Your task to perform on an android device: Show me the alarms in the clock app Image 0: 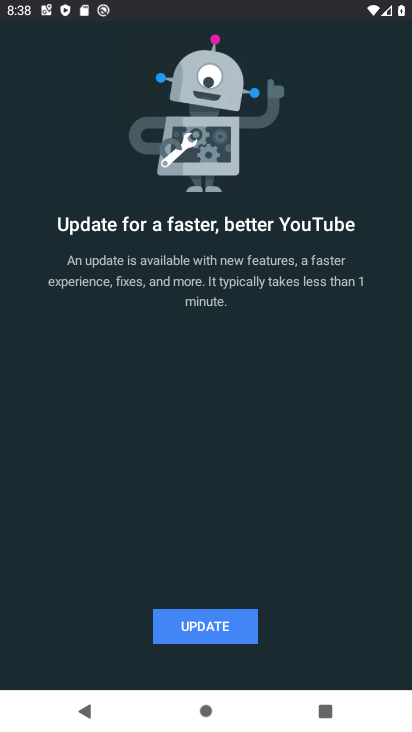
Step 0: press back button
Your task to perform on an android device: Show me the alarms in the clock app Image 1: 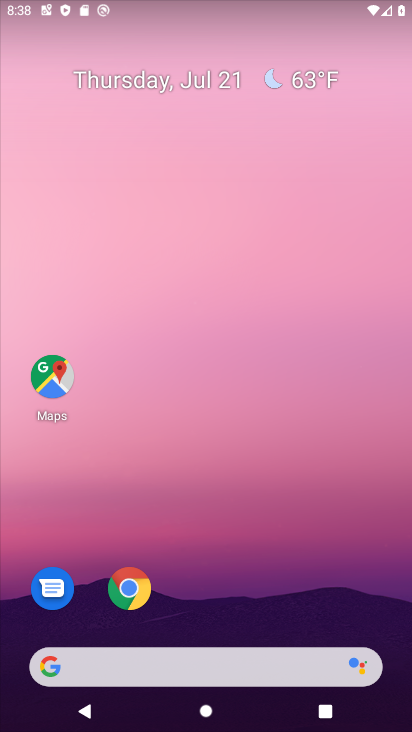
Step 1: drag from (312, 579) to (309, 266)
Your task to perform on an android device: Show me the alarms in the clock app Image 2: 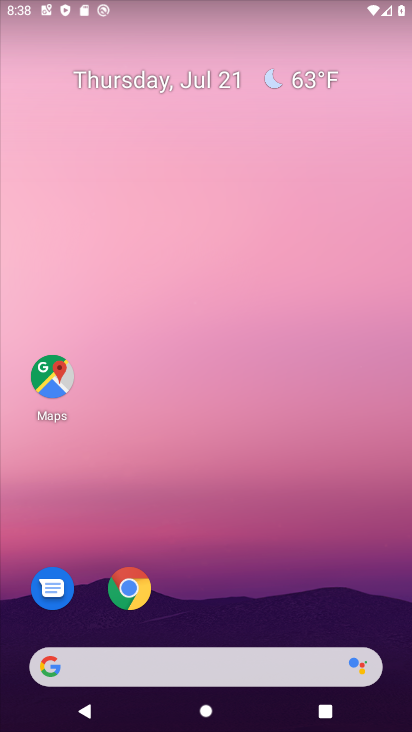
Step 2: drag from (267, 573) to (265, 74)
Your task to perform on an android device: Show me the alarms in the clock app Image 3: 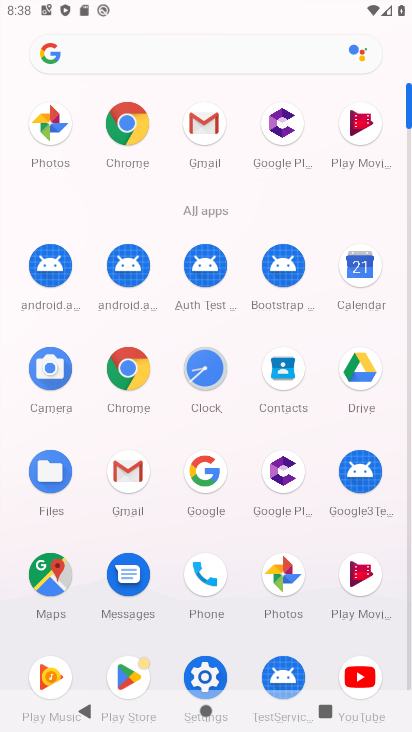
Step 3: click (206, 365)
Your task to perform on an android device: Show me the alarms in the clock app Image 4: 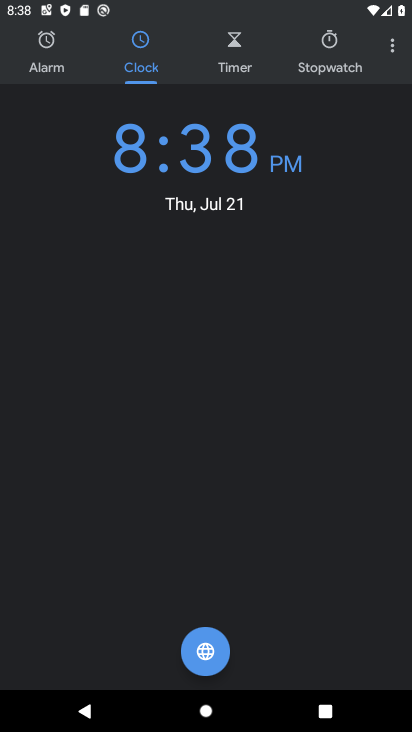
Step 4: click (24, 49)
Your task to perform on an android device: Show me the alarms in the clock app Image 5: 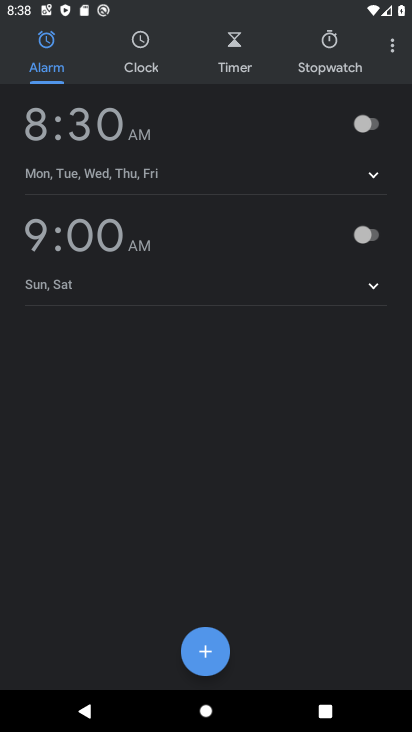
Step 5: task complete